Your task to perform on an android device: change the clock style Image 0: 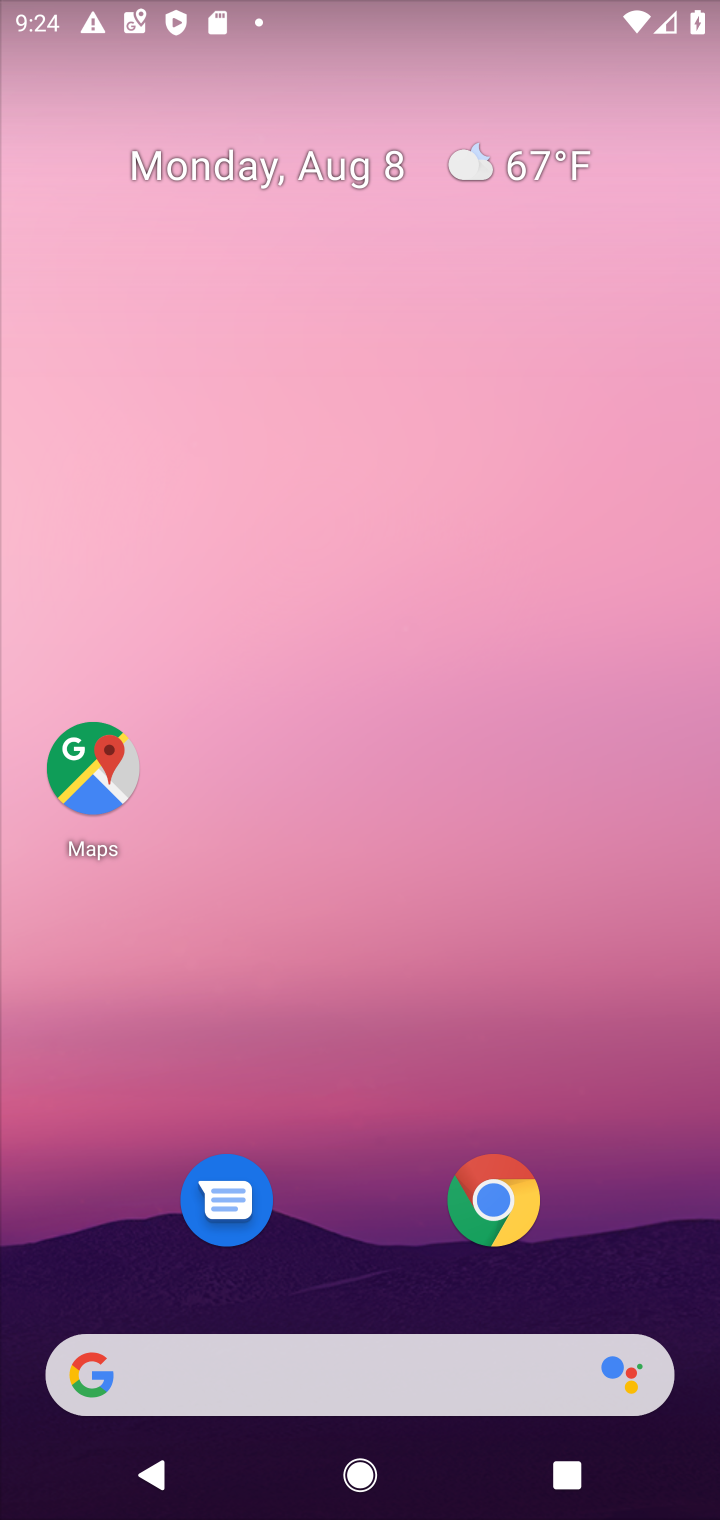
Step 0: press home button
Your task to perform on an android device: change the clock style Image 1: 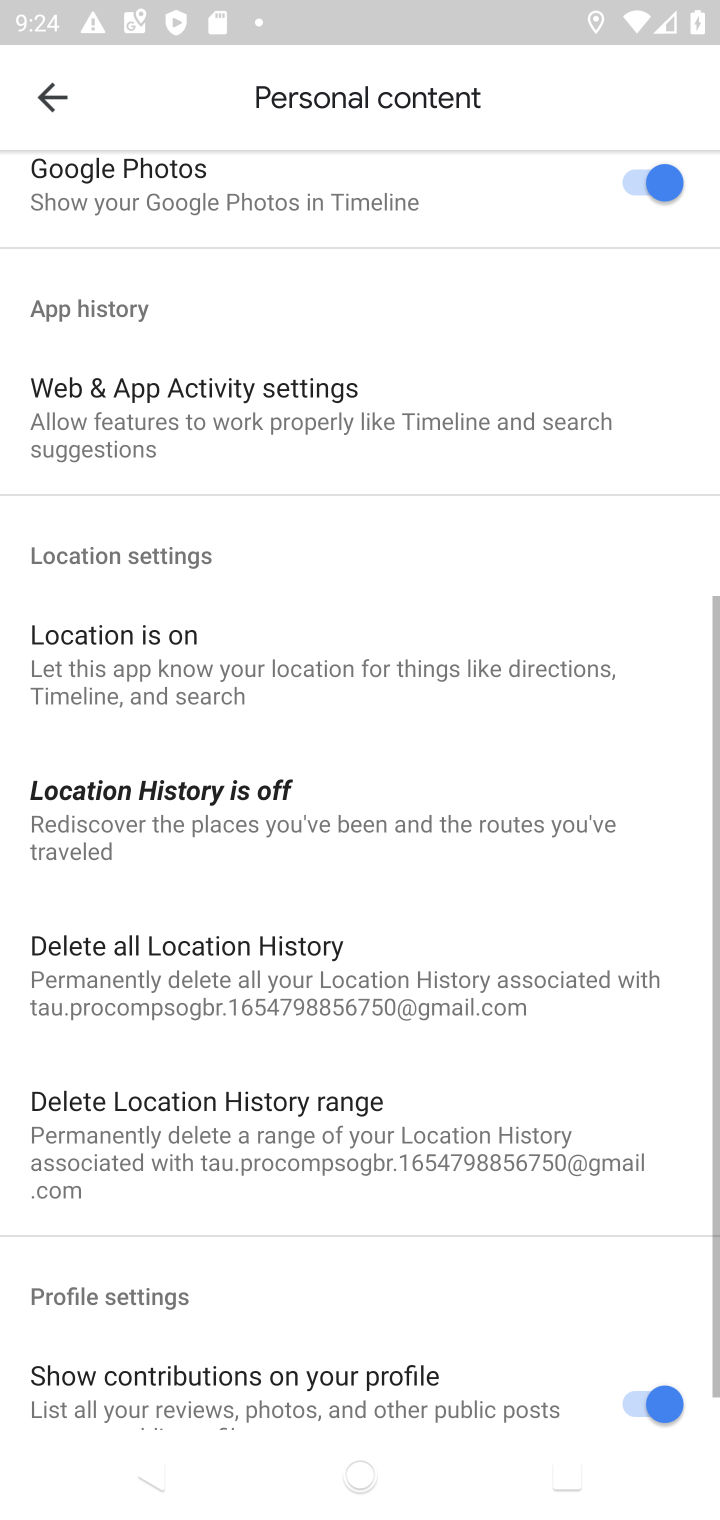
Step 1: click (497, 1204)
Your task to perform on an android device: change the clock style Image 2: 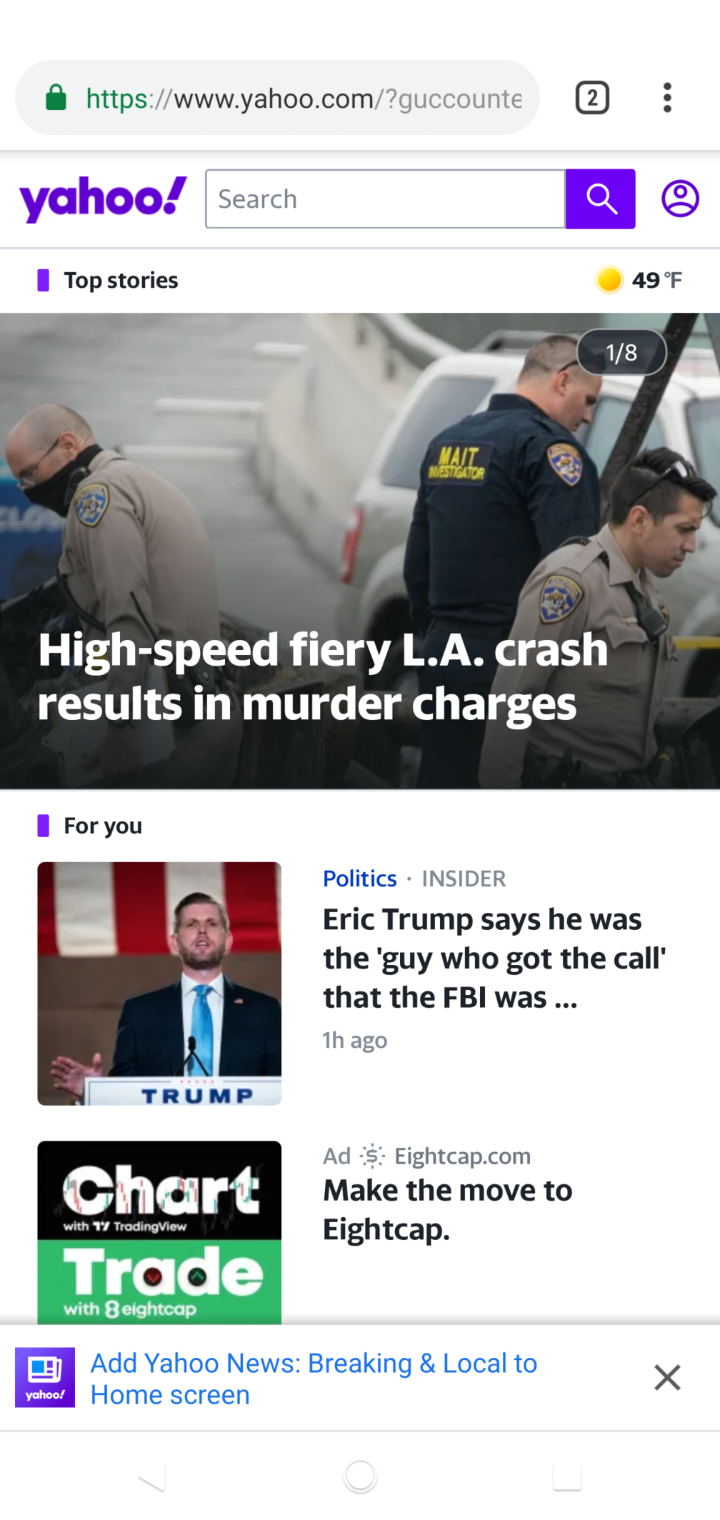
Step 2: drag from (345, 1364) to (516, 273)
Your task to perform on an android device: change the clock style Image 3: 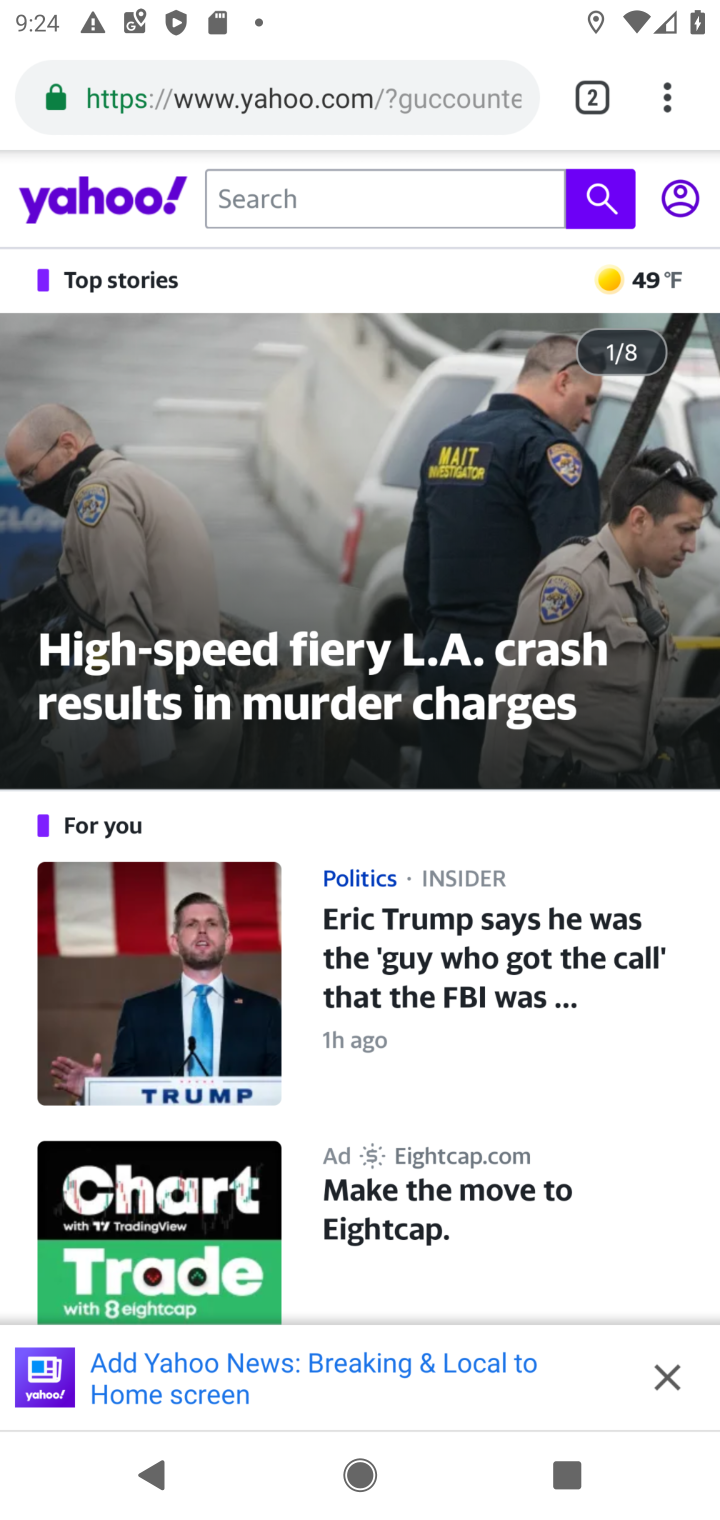
Step 3: press home button
Your task to perform on an android device: change the clock style Image 4: 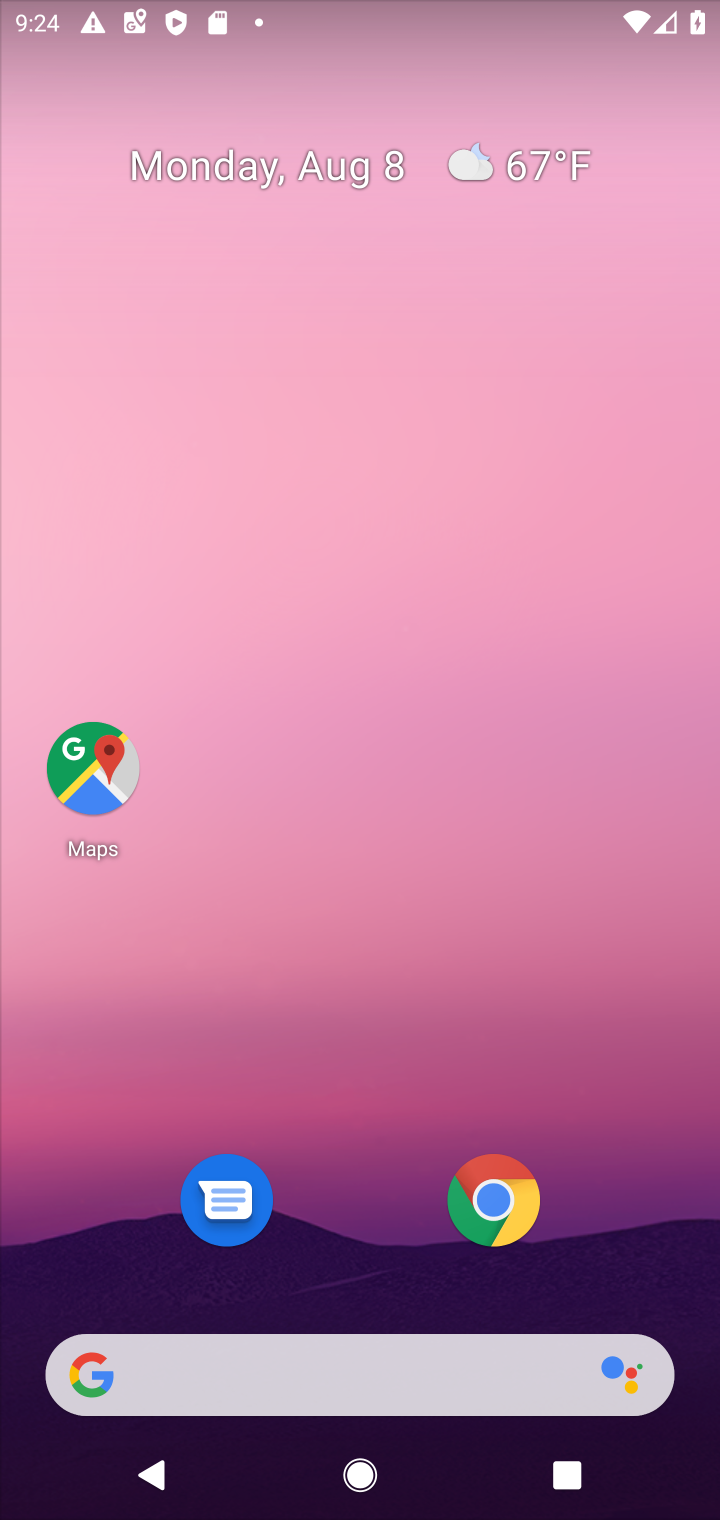
Step 4: drag from (363, 1366) to (579, 192)
Your task to perform on an android device: change the clock style Image 5: 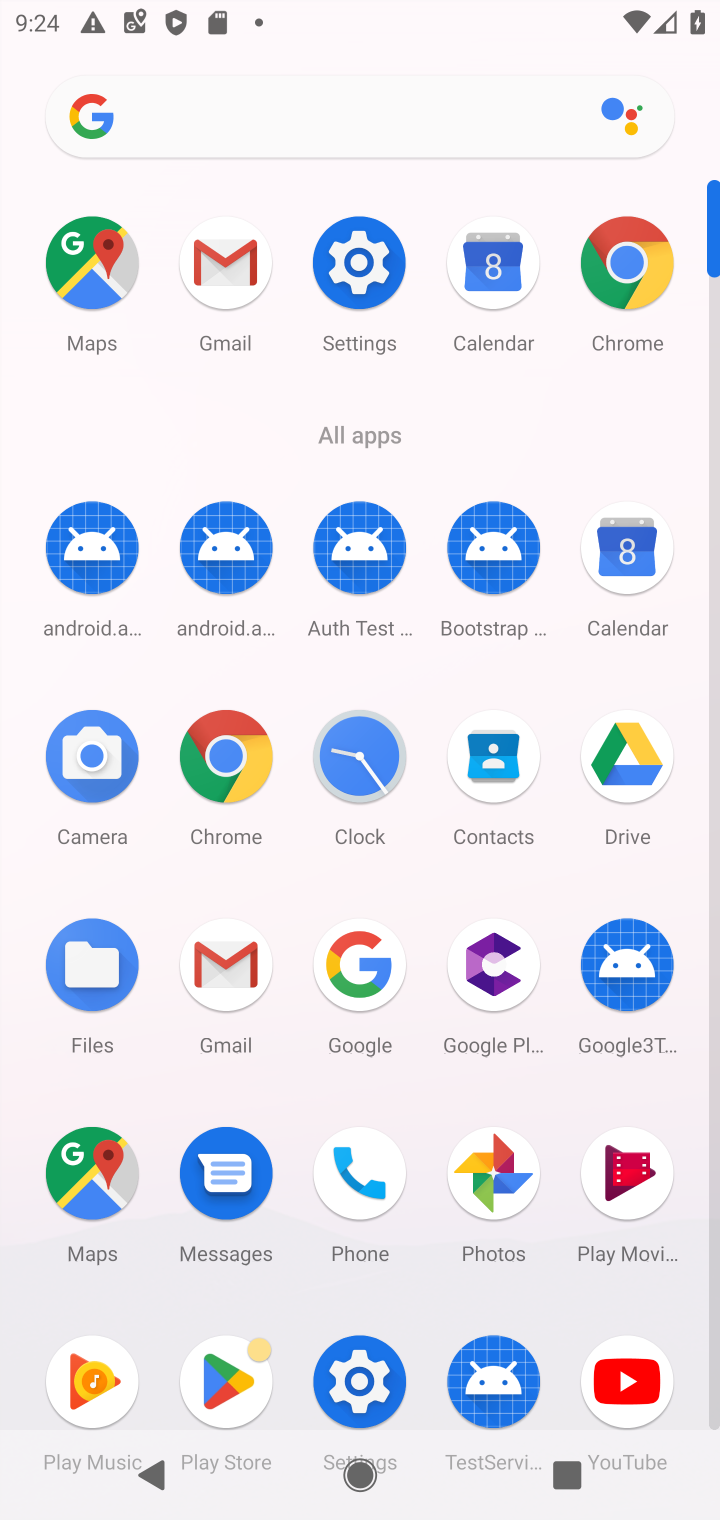
Step 5: click (358, 742)
Your task to perform on an android device: change the clock style Image 6: 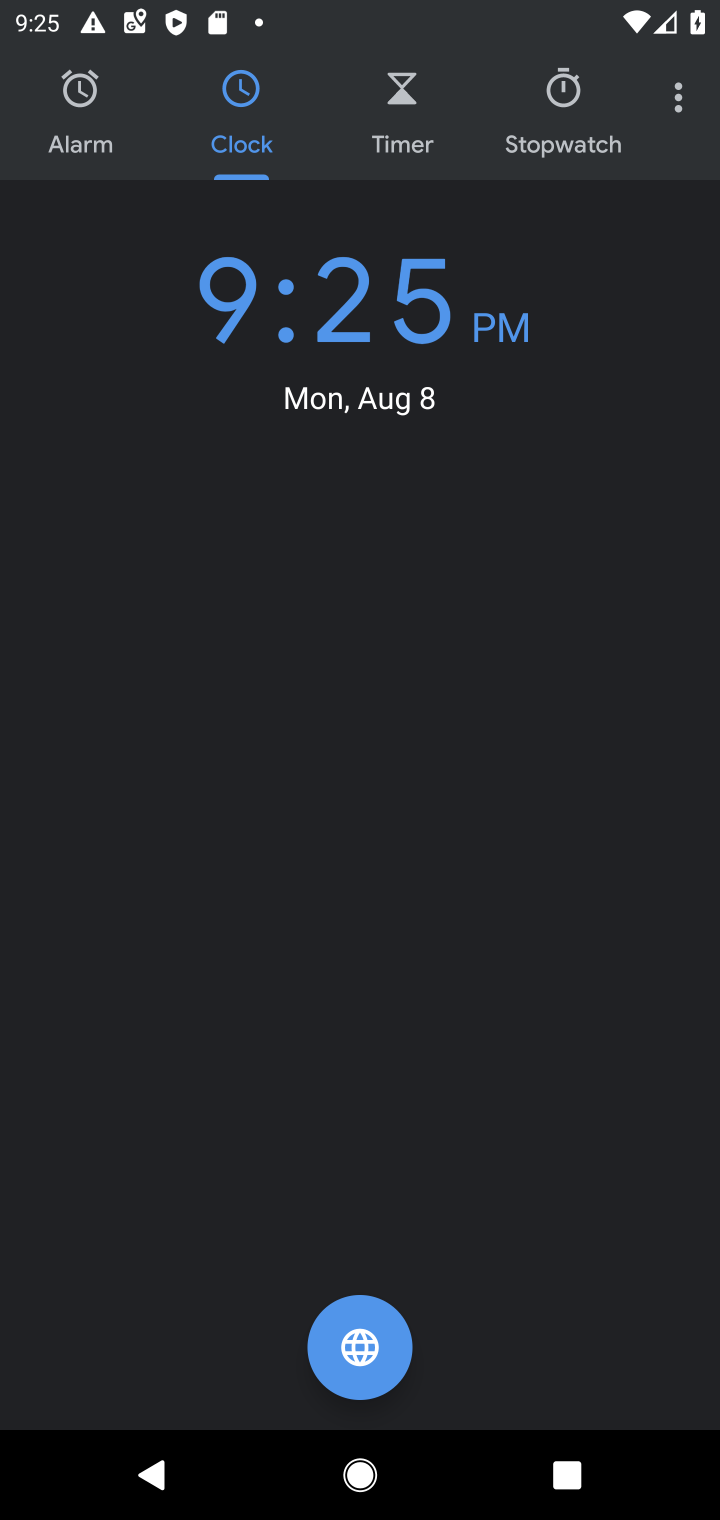
Step 6: click (679, 103)
Your task to perform on an android device: change the clock style Image 7: 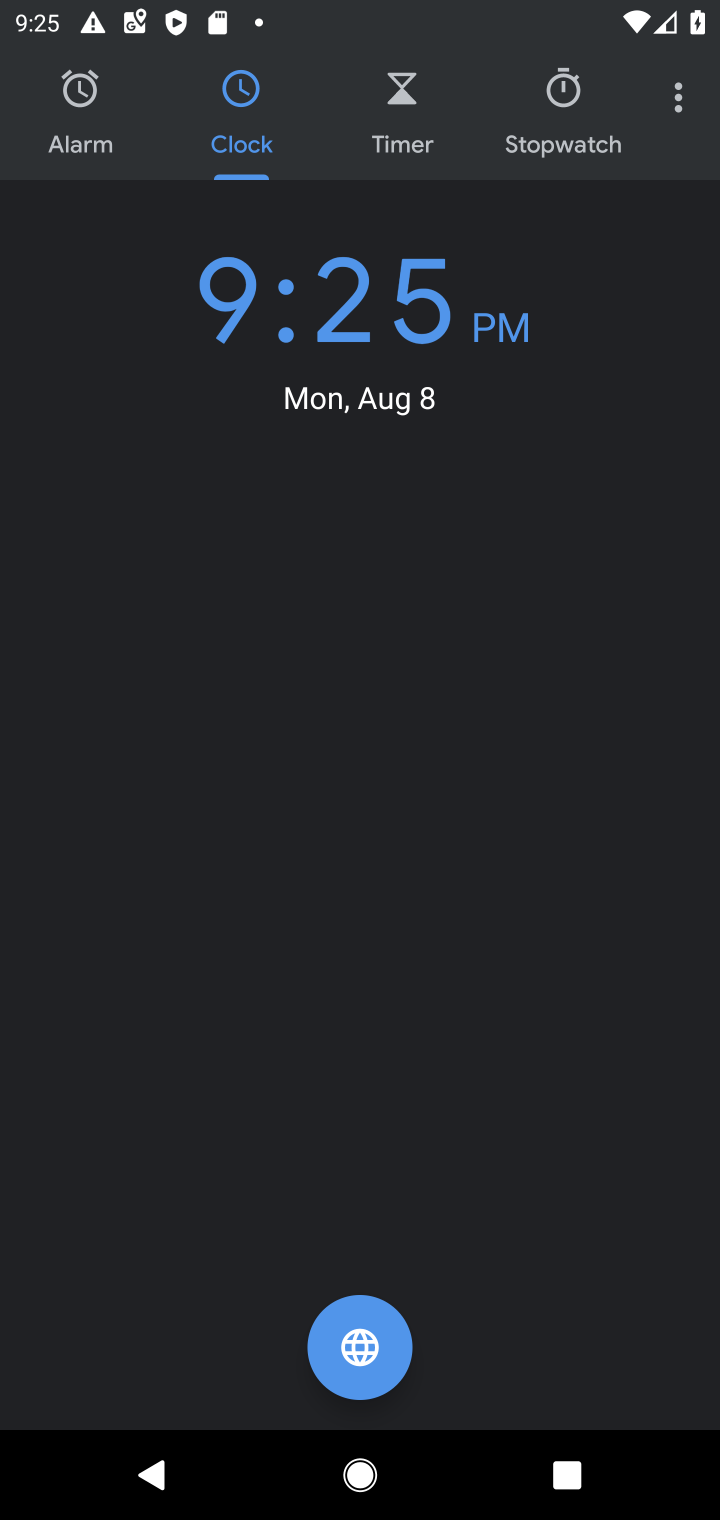
Step 7: click (678, 100)
Your task to perform on an android device: change the clock style Image 8: 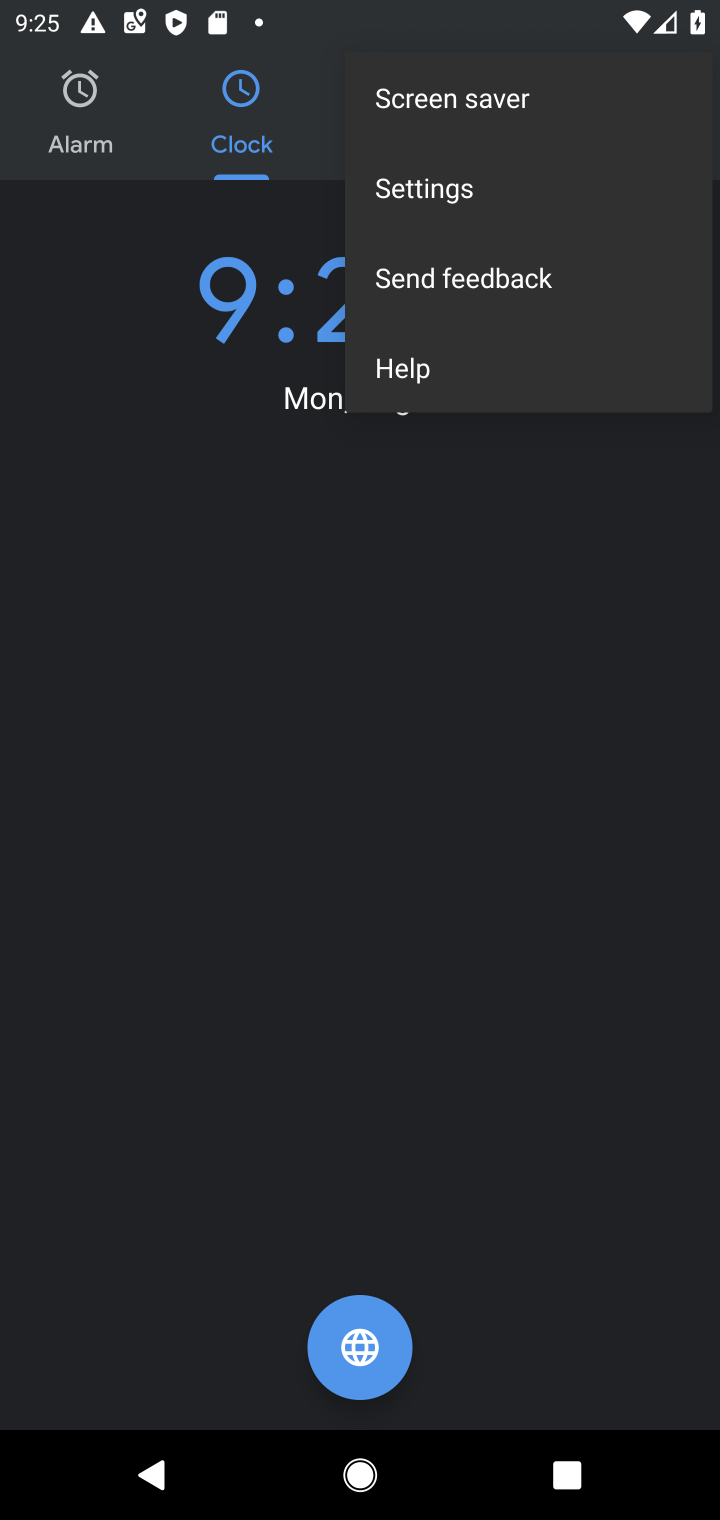
Step 8: click (406, 180)
Your task to perform on an android device: change the clock style Image 9: 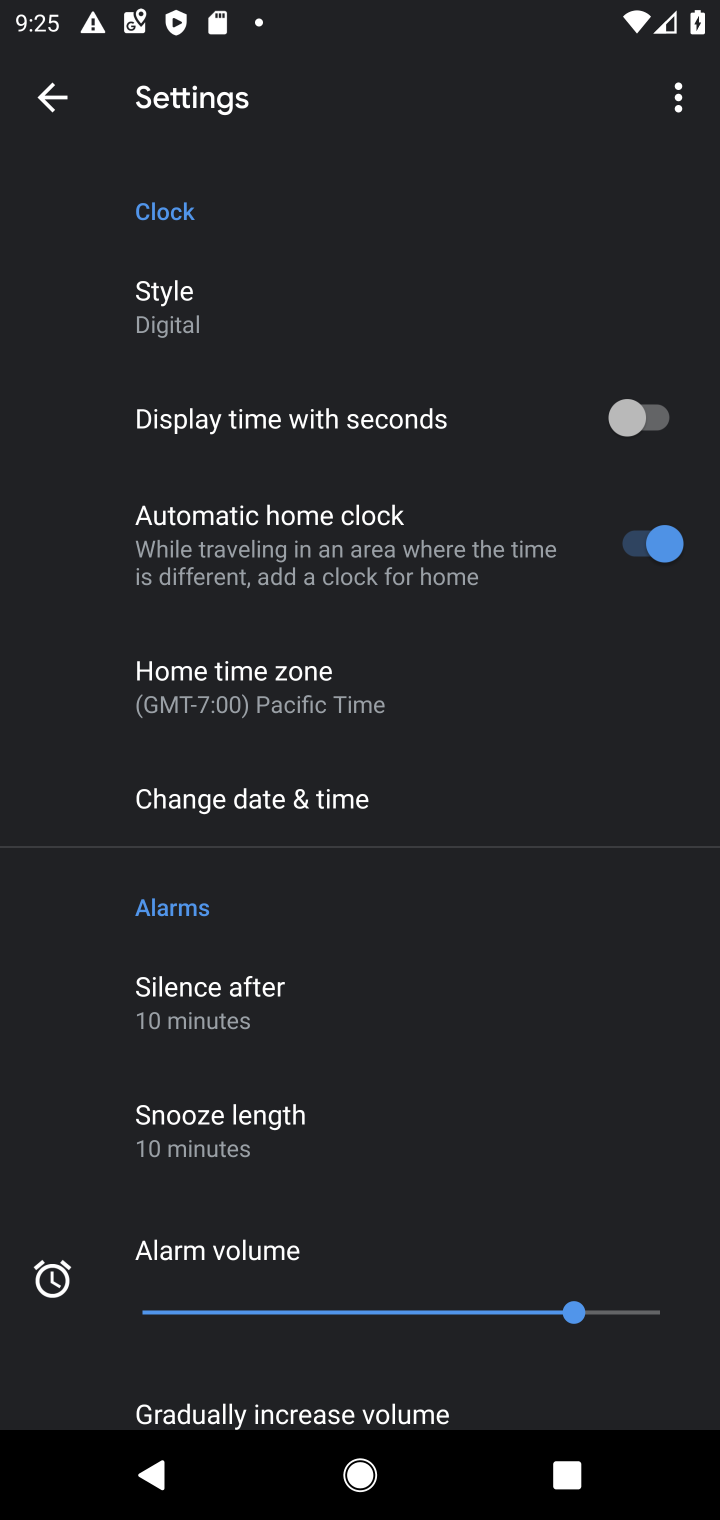
Step 9: click (169, 297)
Your task to perform on an android device: change the clock style Image 10: 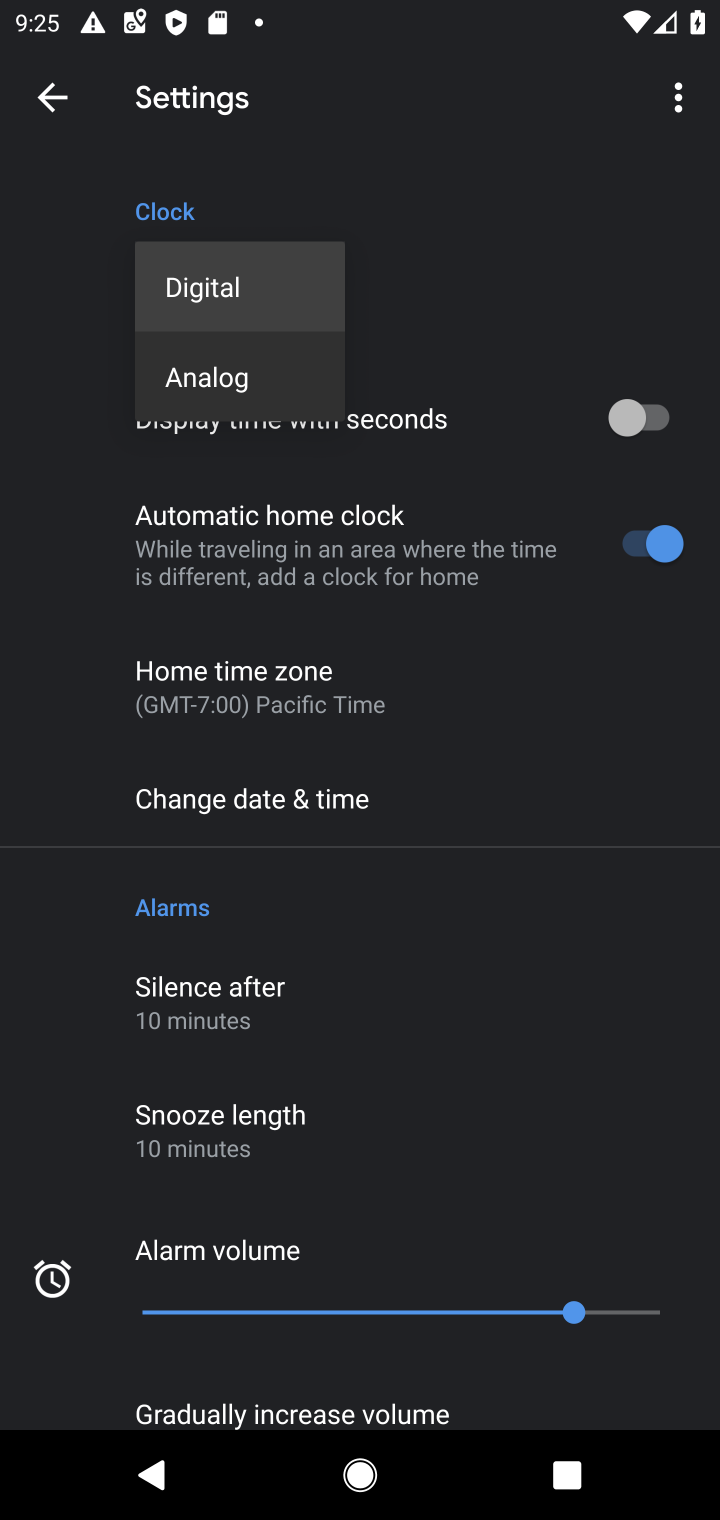
Step 10: click (298, 384)
Your task to perform on an android device: change the clock style Image 11: 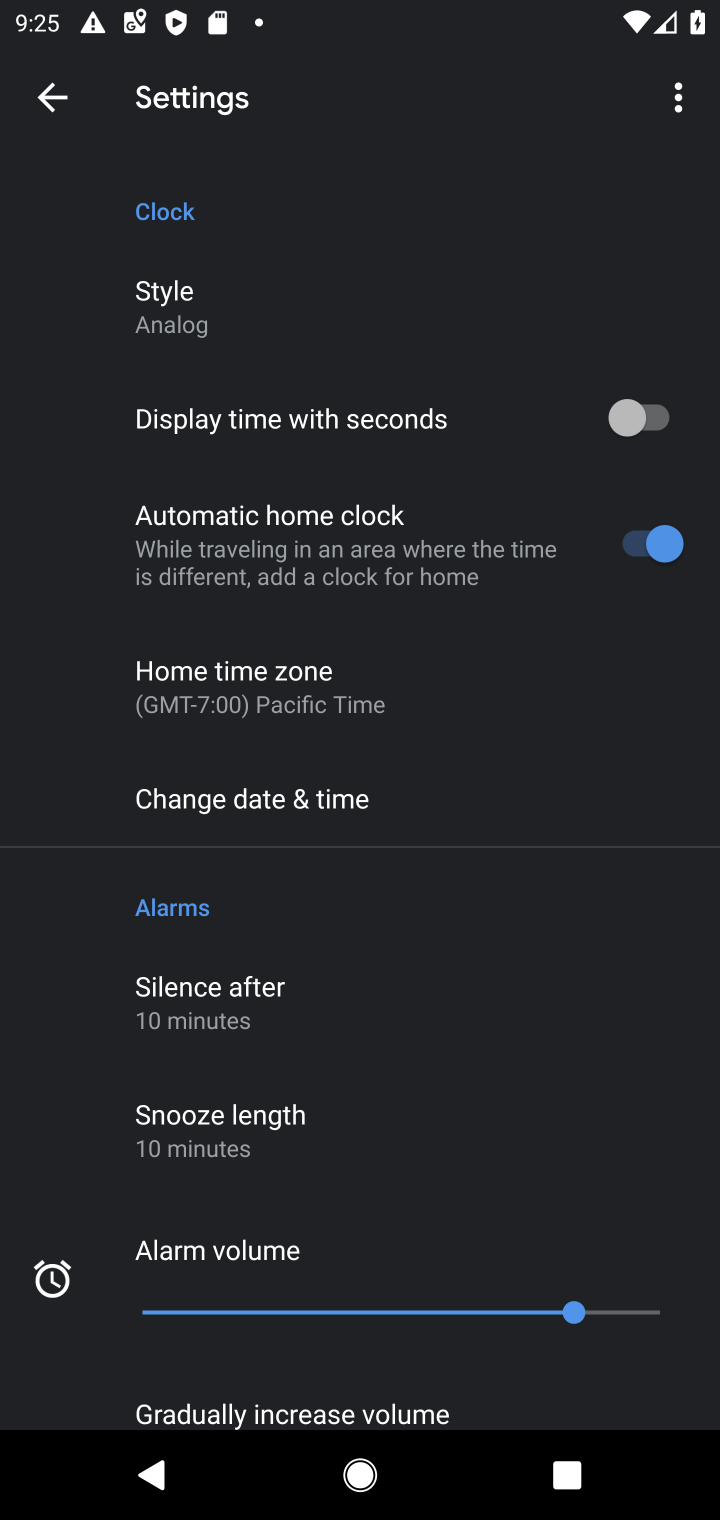
Step 11: task complete